Your task to perform on an android device: toggle javascript in the chrome app Image 0: 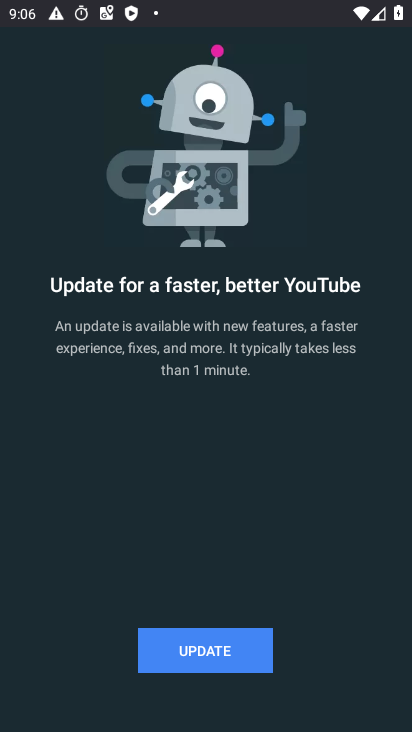
Step 0: press home button
Your task to perform on an android device: toggle javascript in the chrome app Image 1: 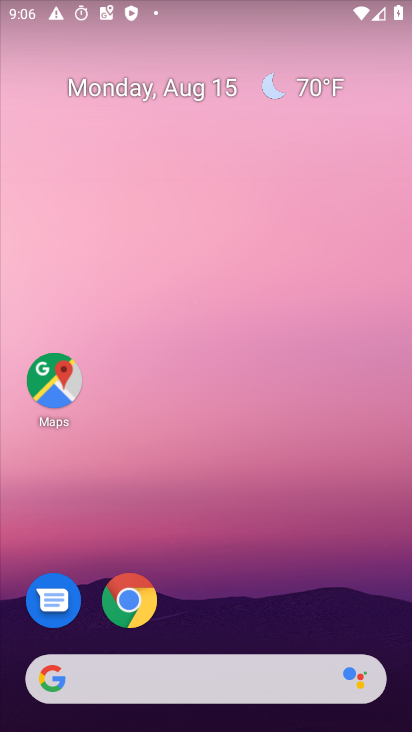
Step 1: click (137, 600)
Your task to perform on an android device: toggle javascript in the chrome app Image 2: 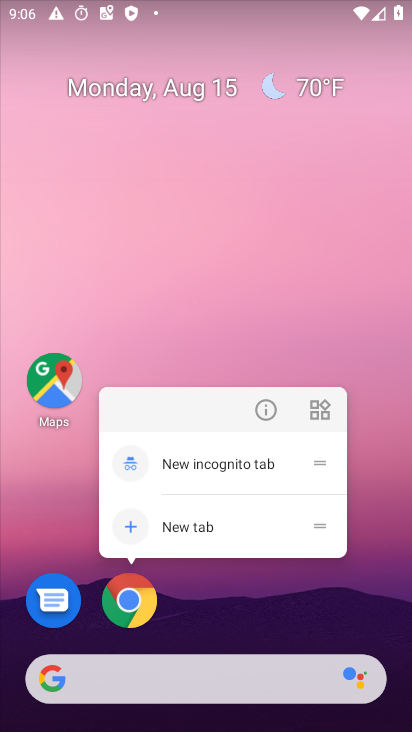
Step 2: click (132, 605)
Your task to perform on an android device: toggle javascript in the chrome app Image 3: 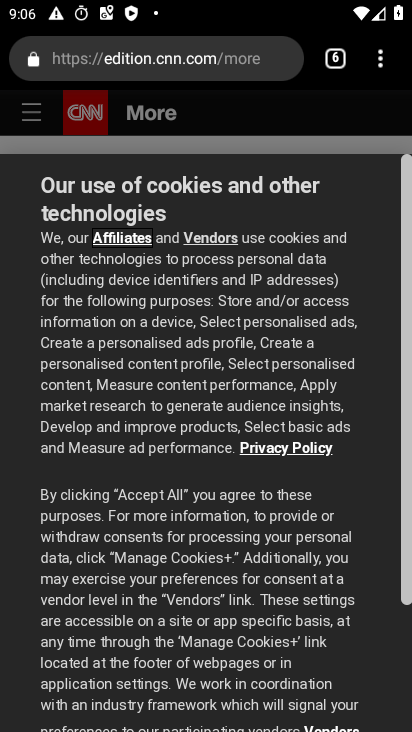
Step 3: click (381, 67)
Your task to perform on an android device: toggle javascript in the chrome app Image 4: 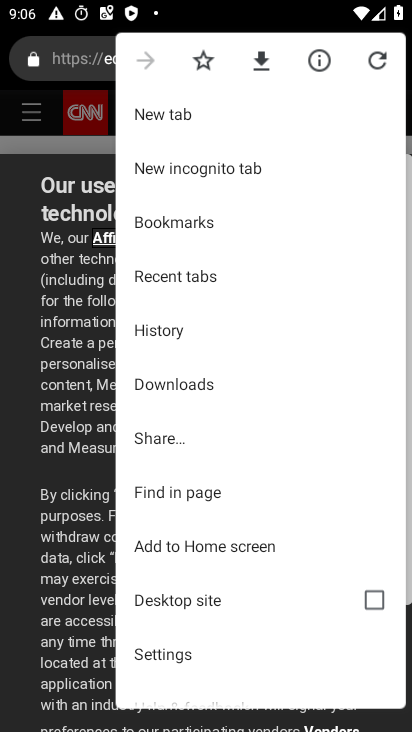
Step 4: click (163, 653)
Your task to perform on an android device: toggle javascript in the chrome app Image 5: 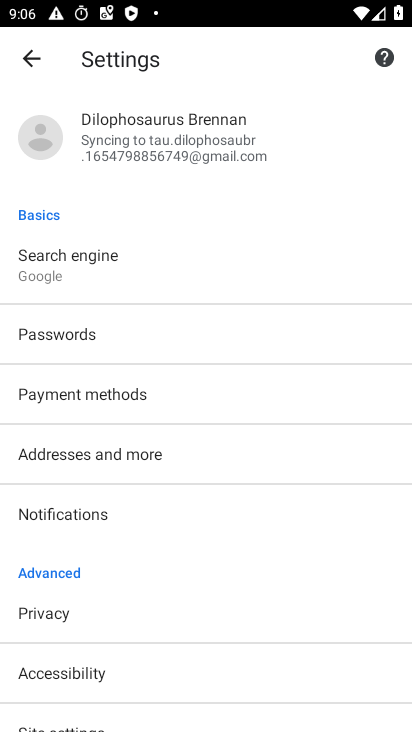
Step 5: drag from (81, 666) to (84, 354)
Your task to perform on an android device: toggle javascript in the chrome app Image 6: 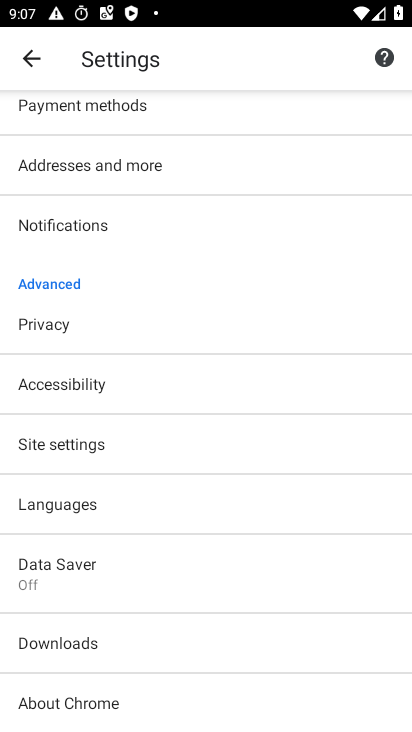
Step 6: click (91, 439)
Your task to perform on an android device: toggle javascript in the chrome app Image 7: 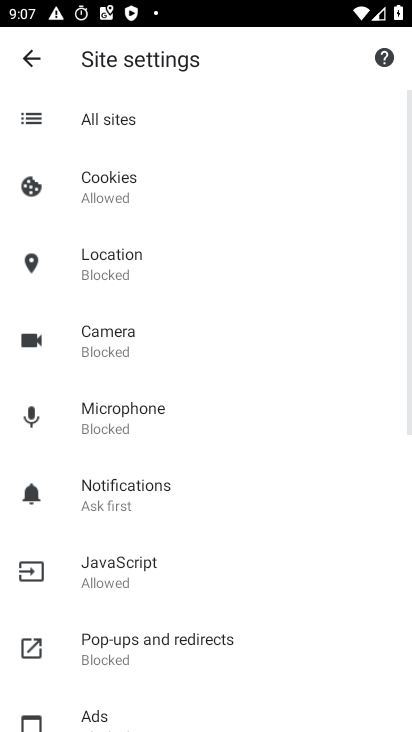
Step 7: click (123, 568)
Your task to perform on an android device: toggle javascript in the chrome app Image 8: 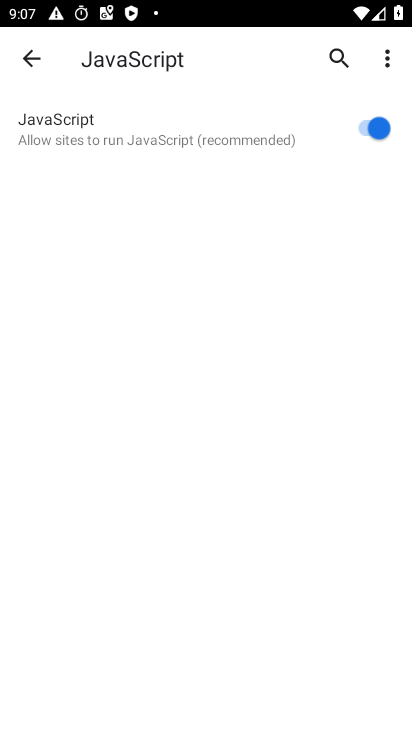
Step 8: click (366, 133)
Your task to perform on an android device: toggle javascript in the chrome app Image 9: 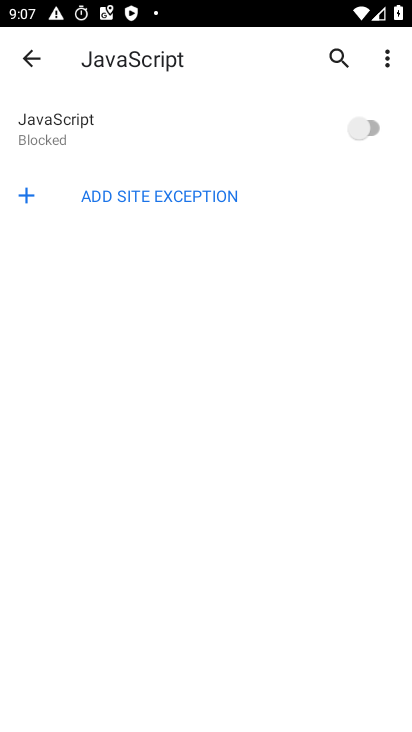
Step 9: task complete